Your task to perform on an android device: What is the news today? Image 0: 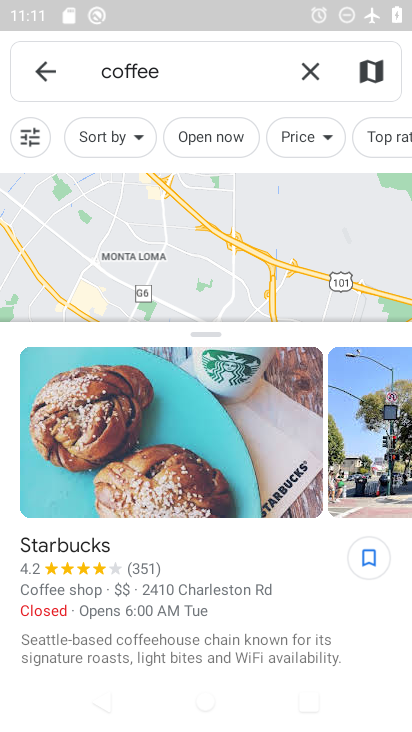
Step 0: press home button
Your task to perform on an android device: What is the news today? Image 1: 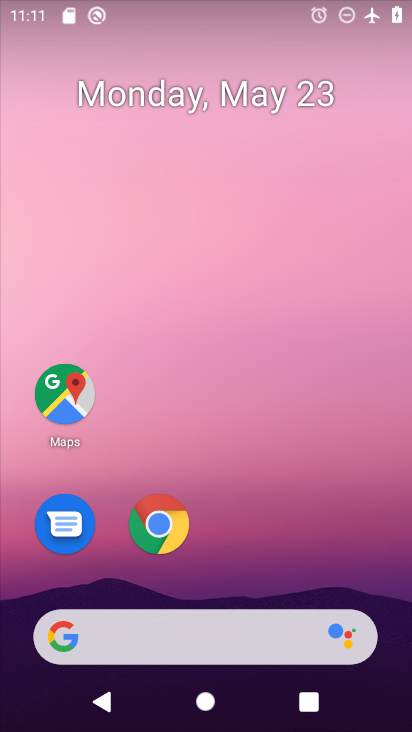
Step 1: drag from (205, 573) to (194, 190)
Your task to perform on an android device: What is the news today? Image 2: 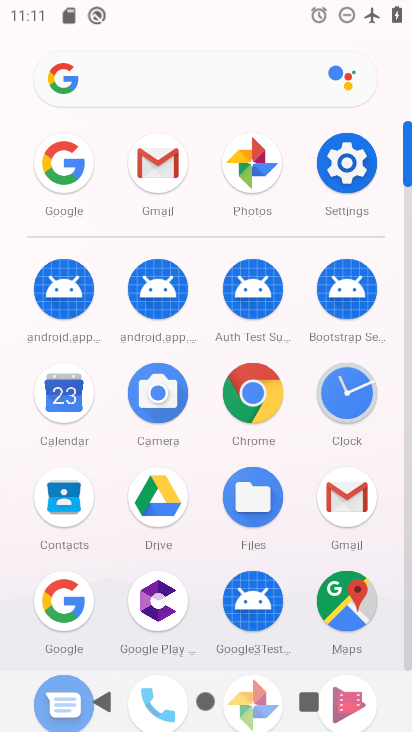
Step 2: click (71, 190)
Your task to perform on an android device: What is the news today? Image 3: 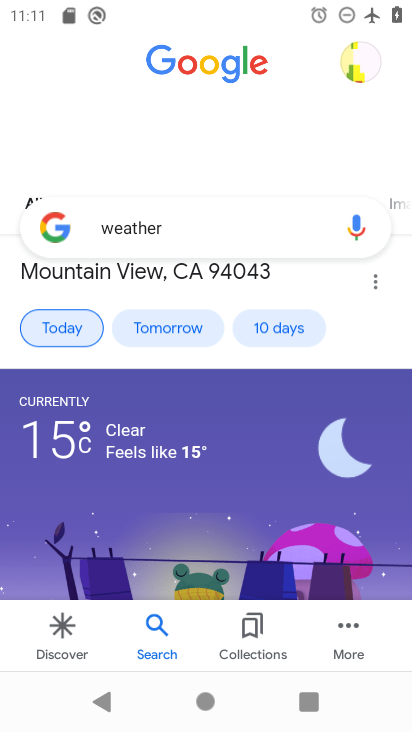
Step 3: click (210, 220)
Your task to perform on an android device: What is the news today? Image 4: 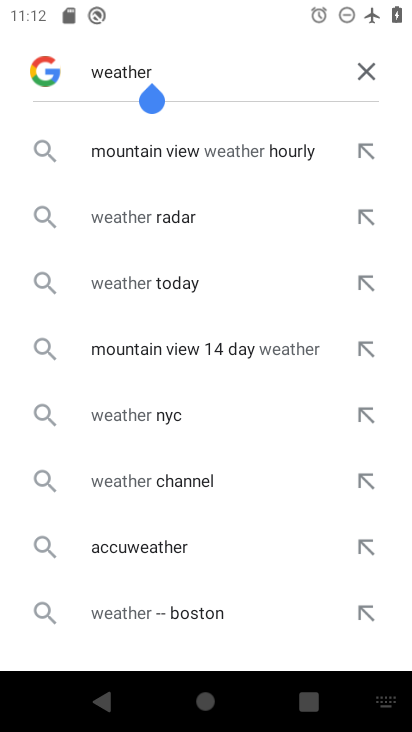
Step 4: click (350, 64)
Your task to perform on an android device: What is the news today? Image 5: 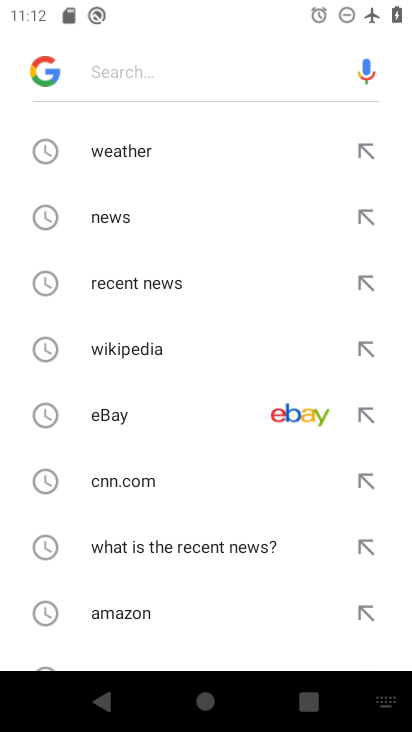
Step 5: click (101, 205)
Your task to perform on an android device: What is the news today? Image 6: 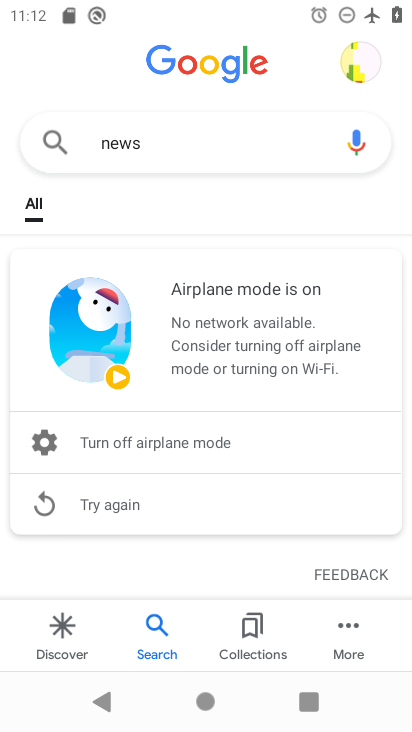
Step 6: task complete